Your task to perform on an android device: open app "File Manager" (install if not already installed) Image 0: 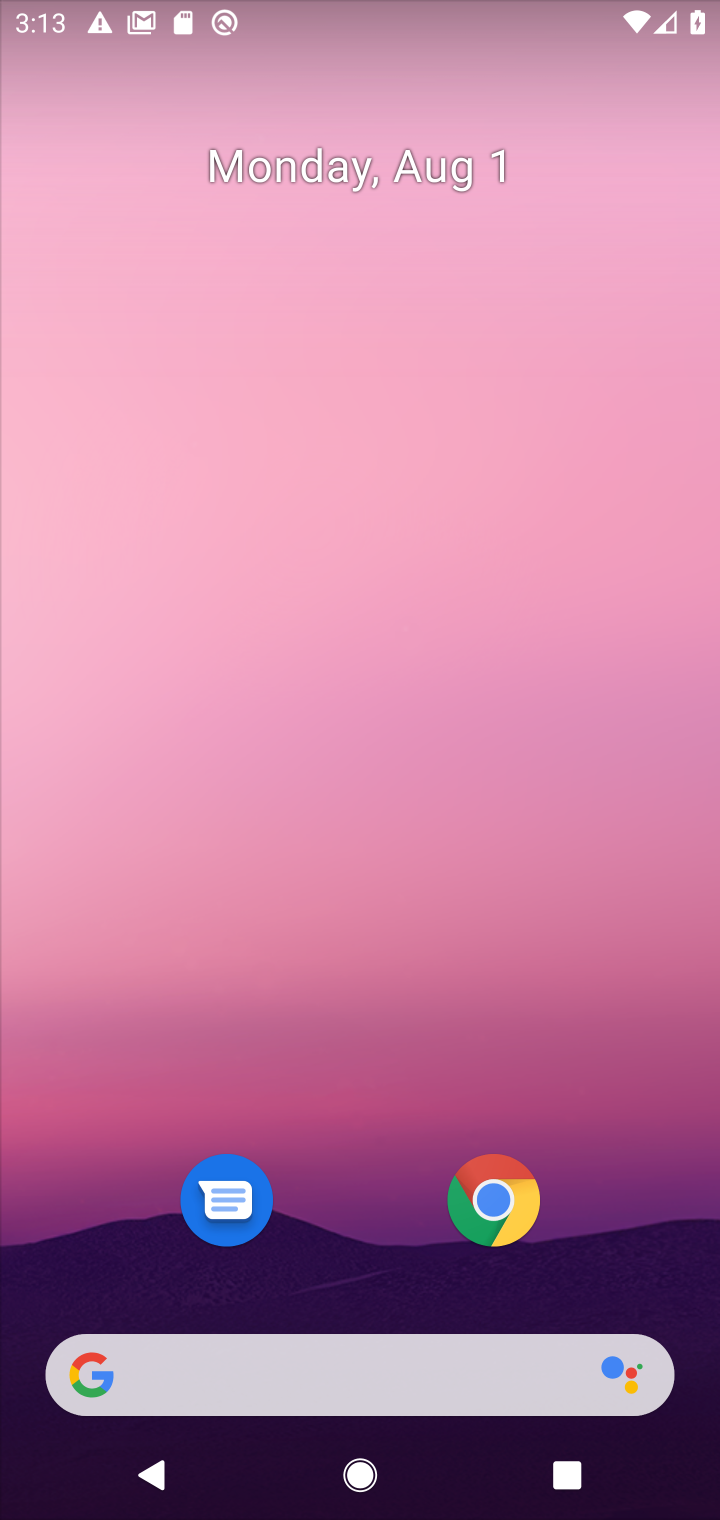
Step 0: drag from (315, 1193) to (324, 54)
Your task to perform on an android device: open app "File Manager" (install if not already installed) Image 1: 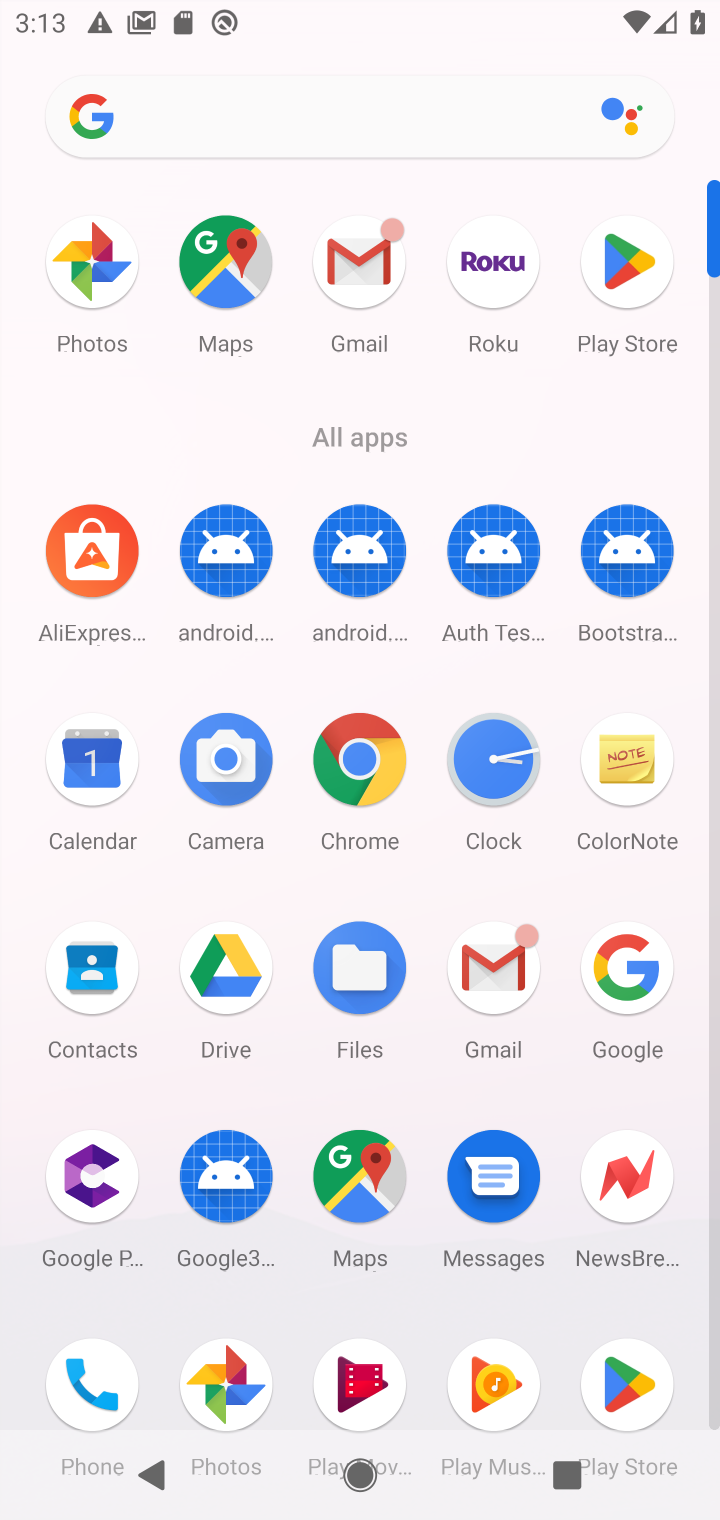
Step 1: click (633, 284)
Your task to perform on an android device: open app "File Manager" (install if not already installed) Image 2: 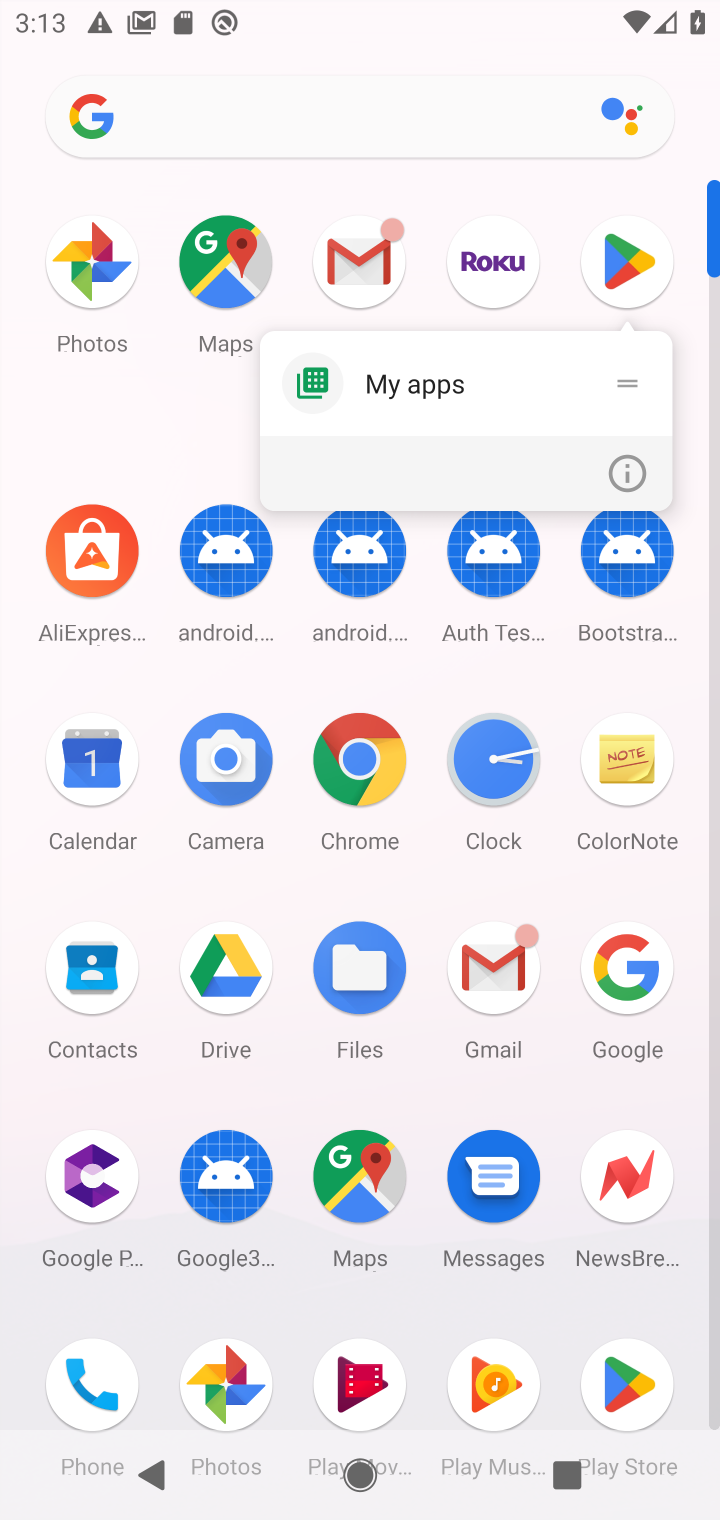
Step 2: click (631, 270)
Your task to perform on an android device: open app "File Manager" (install if not already installed) Image 3: 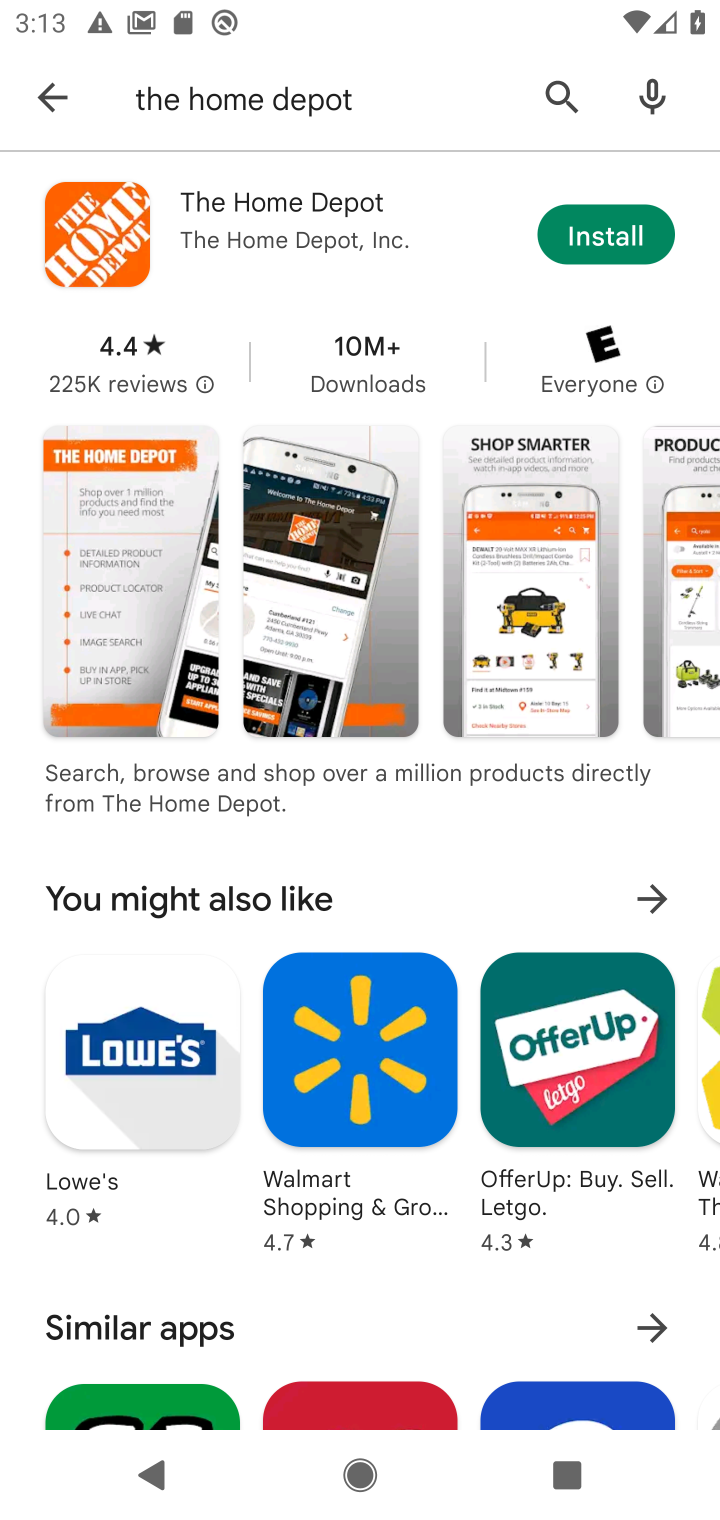
Step 3: click (317, 76)
Your task to perform on an android device: open app "File Manager" (install if not already installed) Image 4: 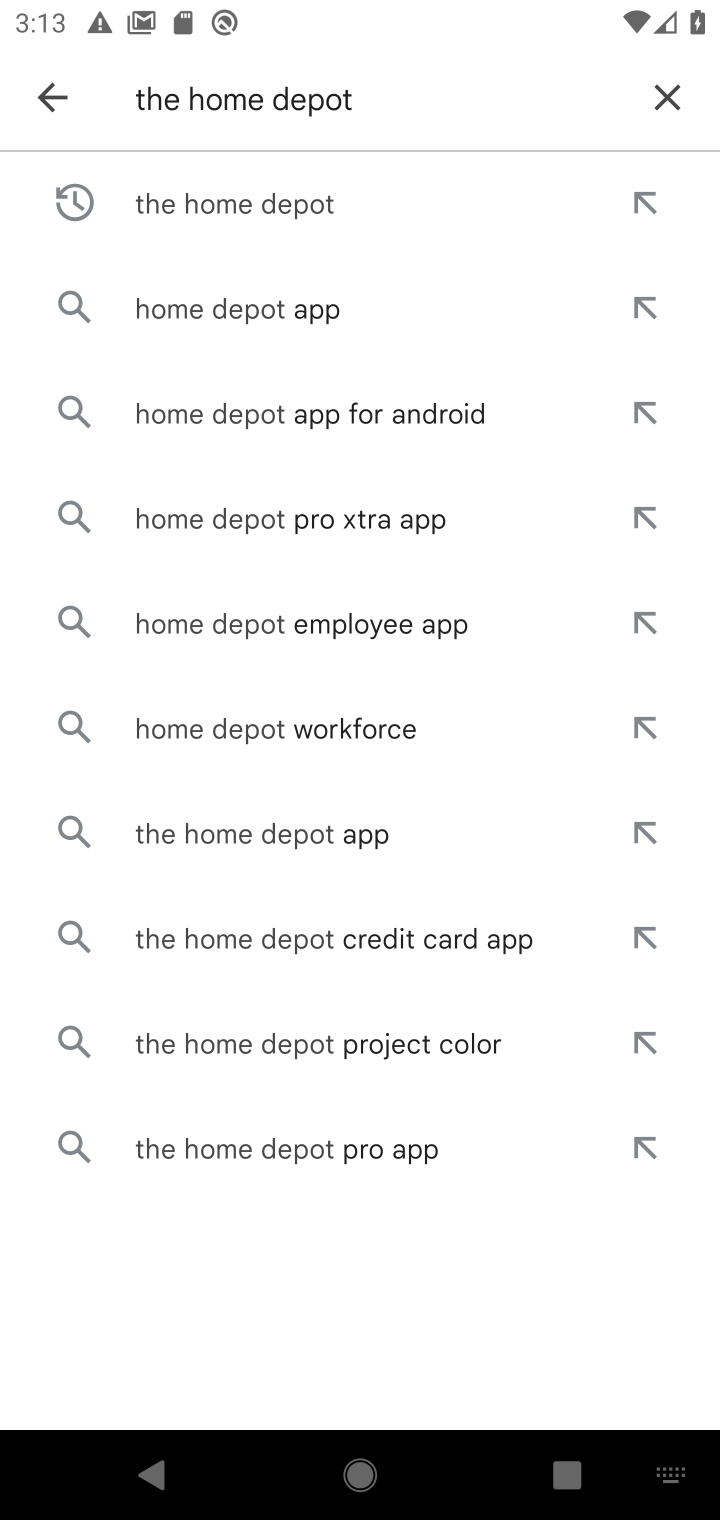
Step 4: click (655, 89)
Your task to perform on an android device: open app "File Manager" (install if not already installed) Image 5: 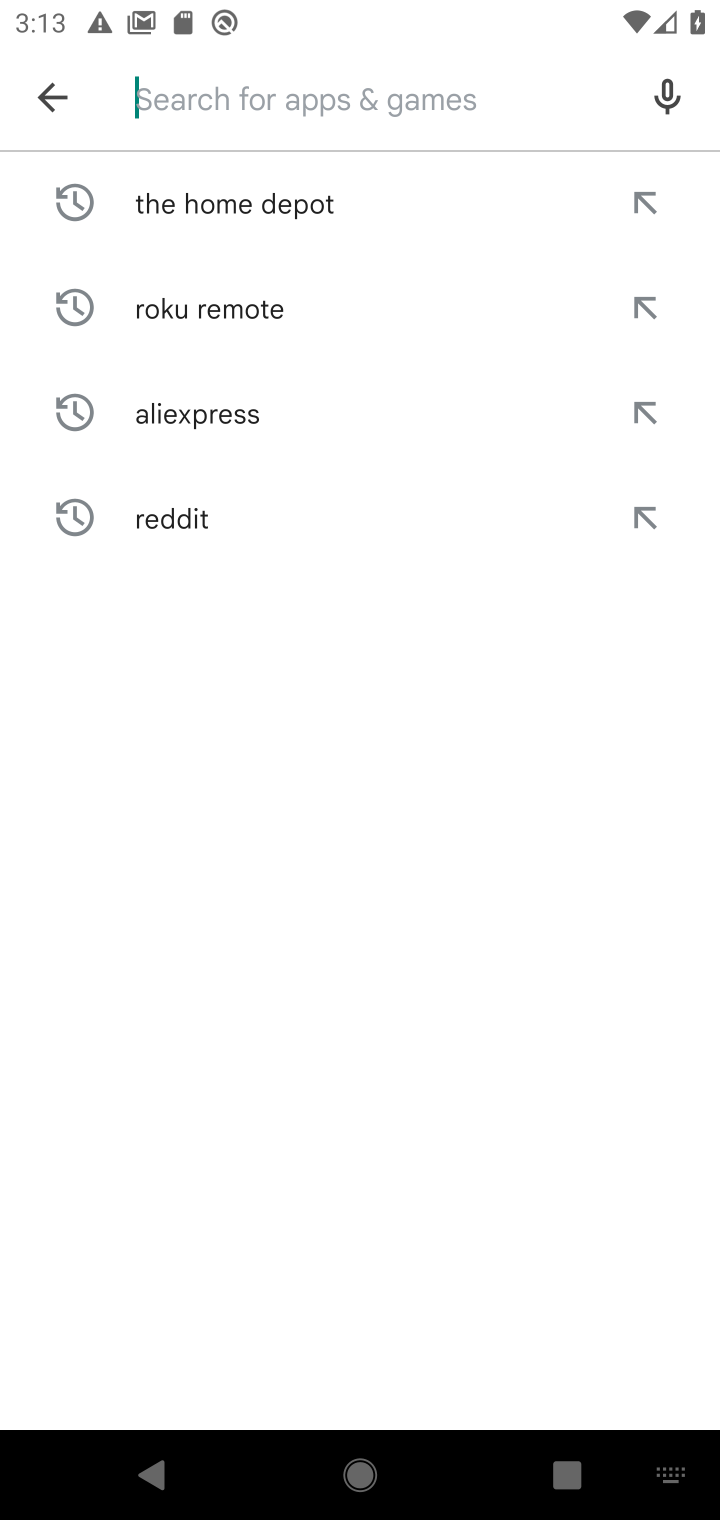
Step 5: type "file manager"
Your task to perform on an android device: open app "File Manager" (install if not already installed) Image 6: 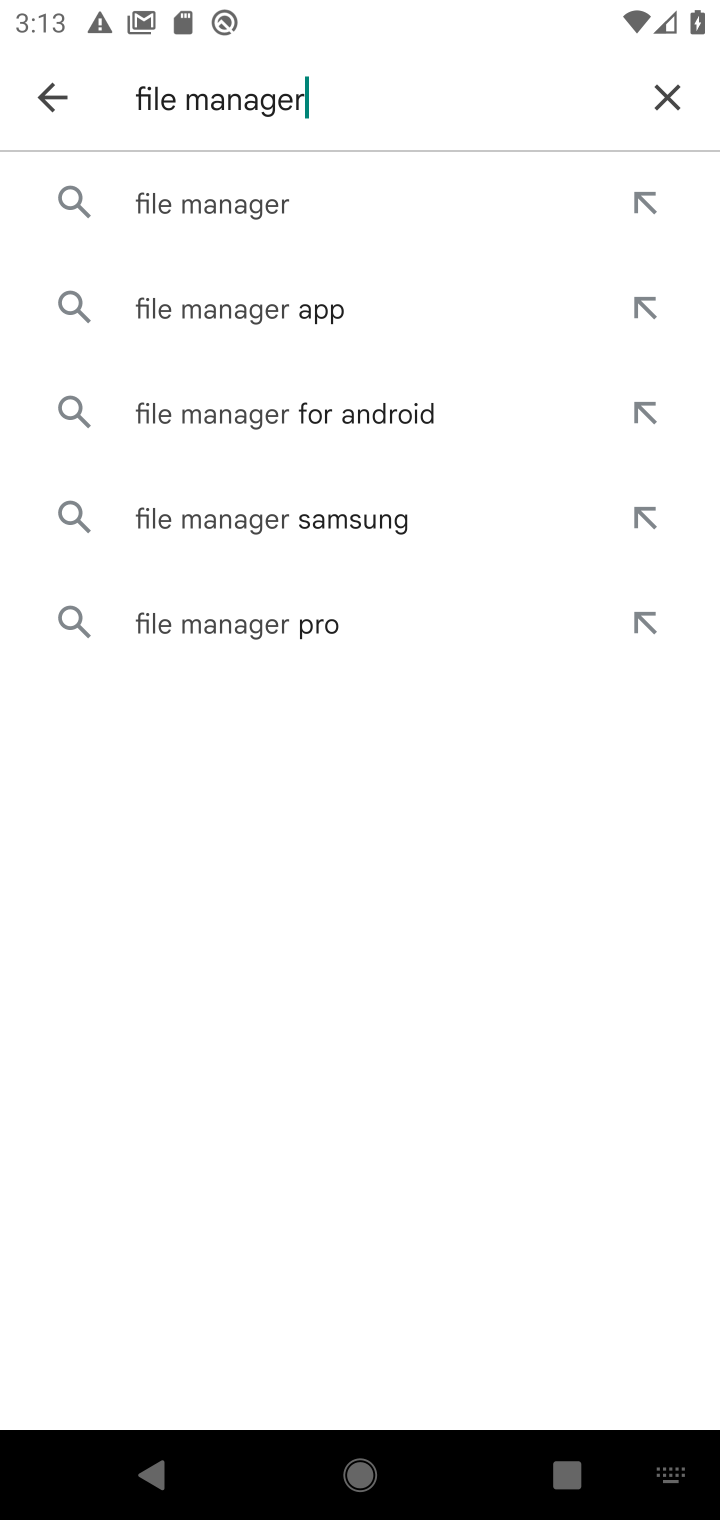
Step 6: click (300, 228)
Your task to perform on an android device: open app "File Manager" (install if not already installed) Image 7: 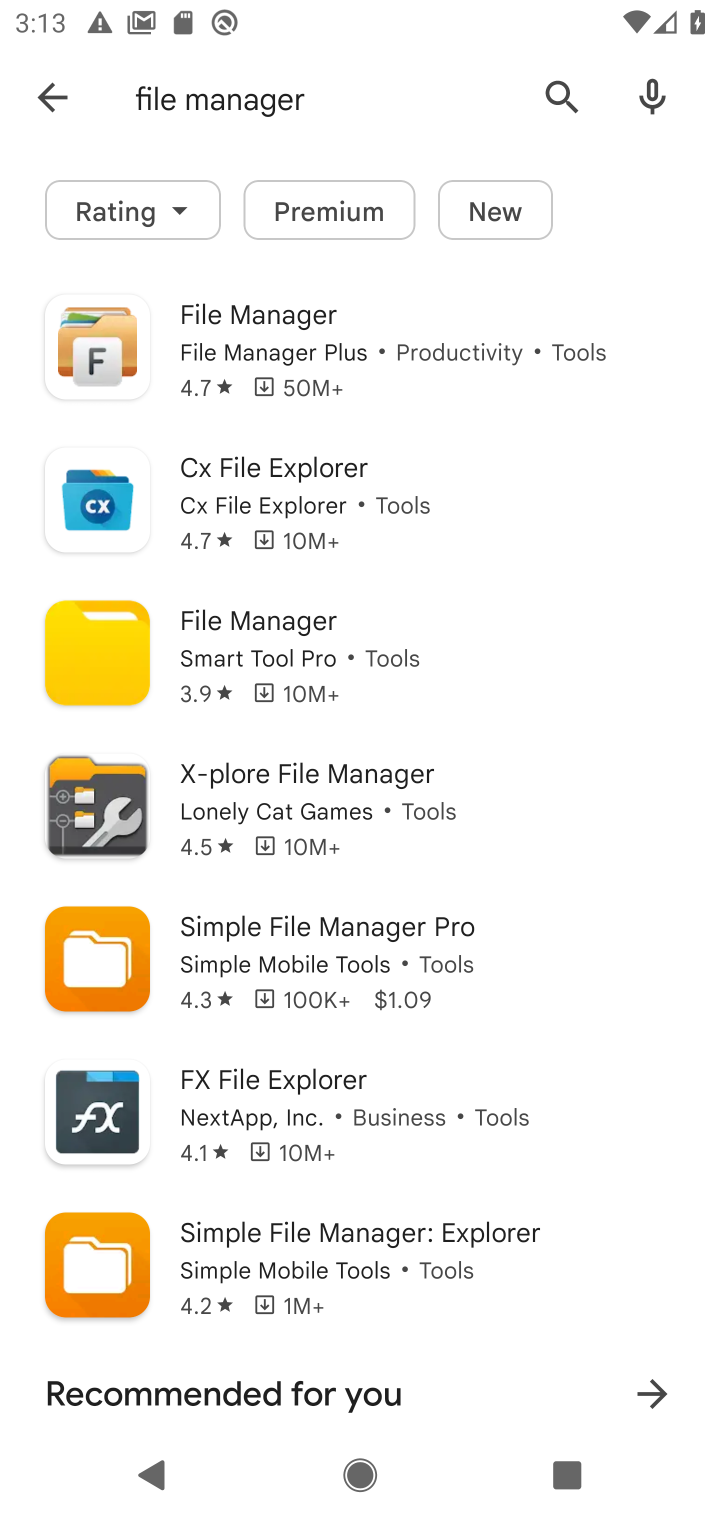
Step 7: click (291, 352)
Your task to perform on an android device: open app "File Manager" (install if not already installed) Image 8: 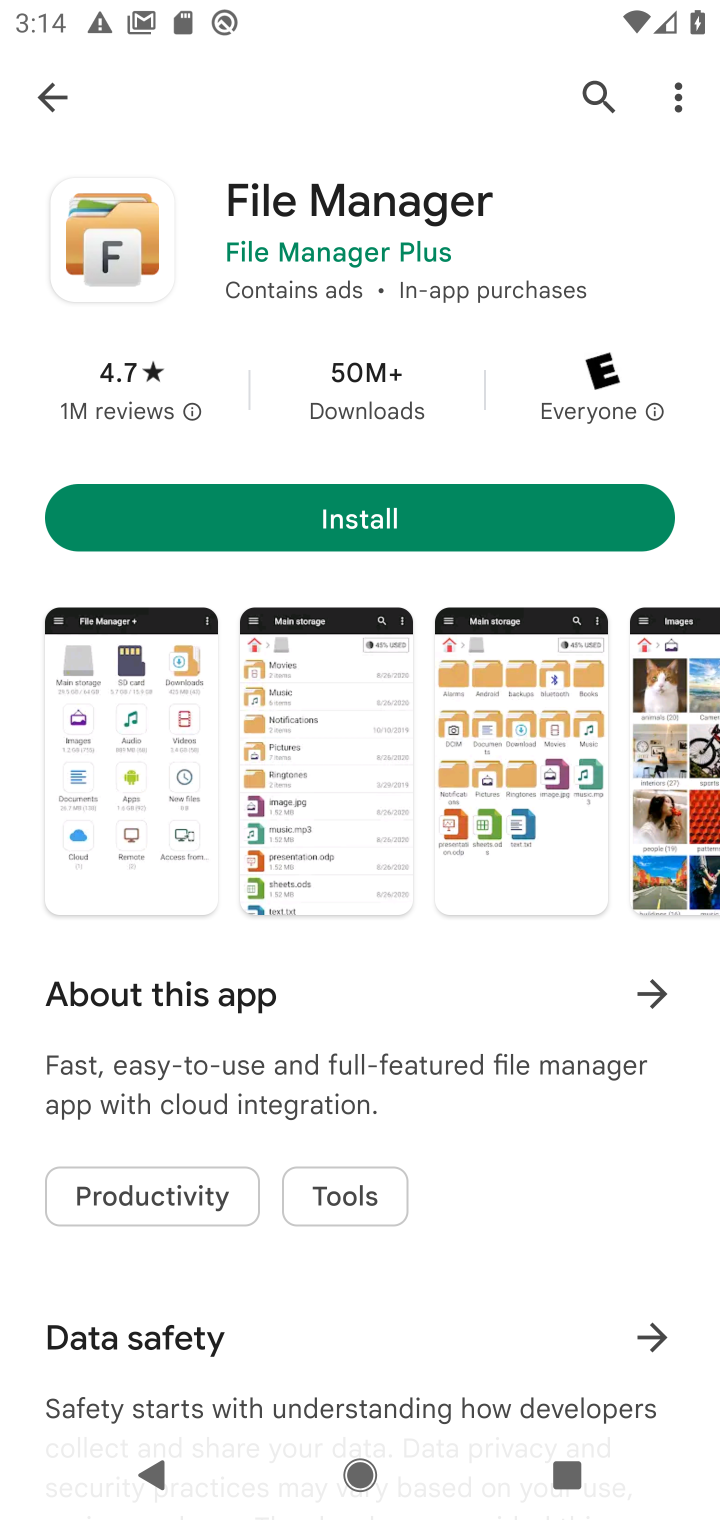
Step 8: click (487, 547)
Your task to perform on an android device: open app "File Manager" (install if not already installed) Image 9: 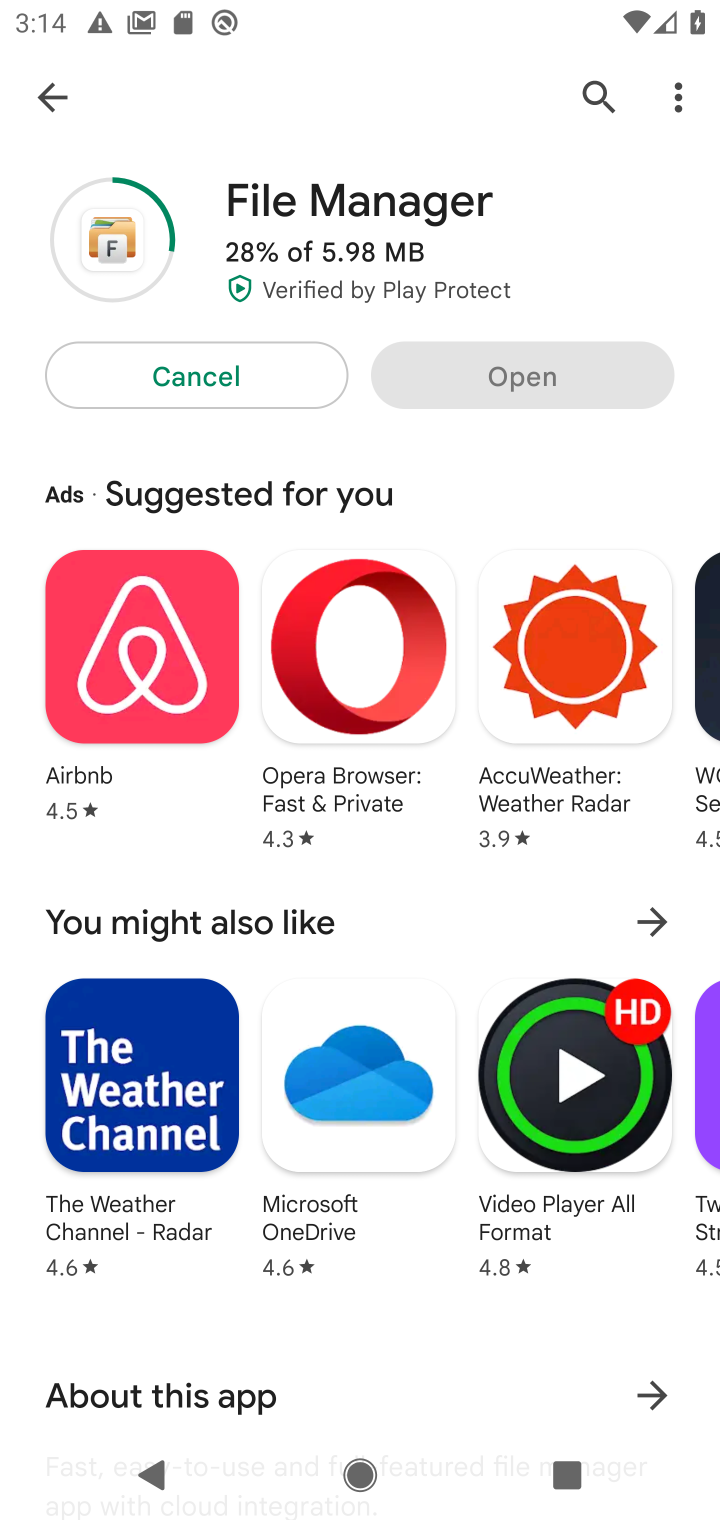
Step 9: click (63, 88)
Your task to perform on an android device: open app "File Manager" (install if not already installed) Image 10: 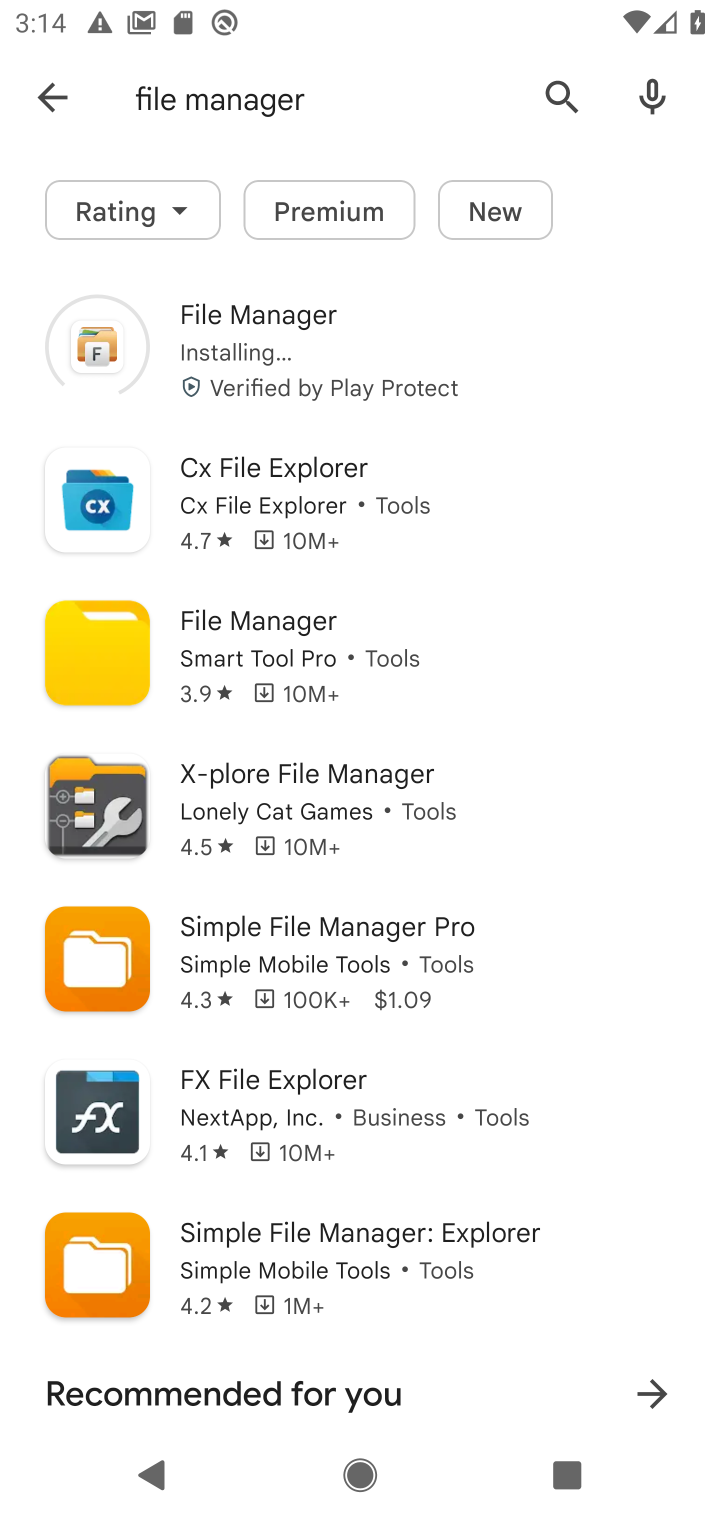
Step 10: click (40, 103)
Your task to perform on an android device: open app "File Manager" (install if not already installed) Image 11: 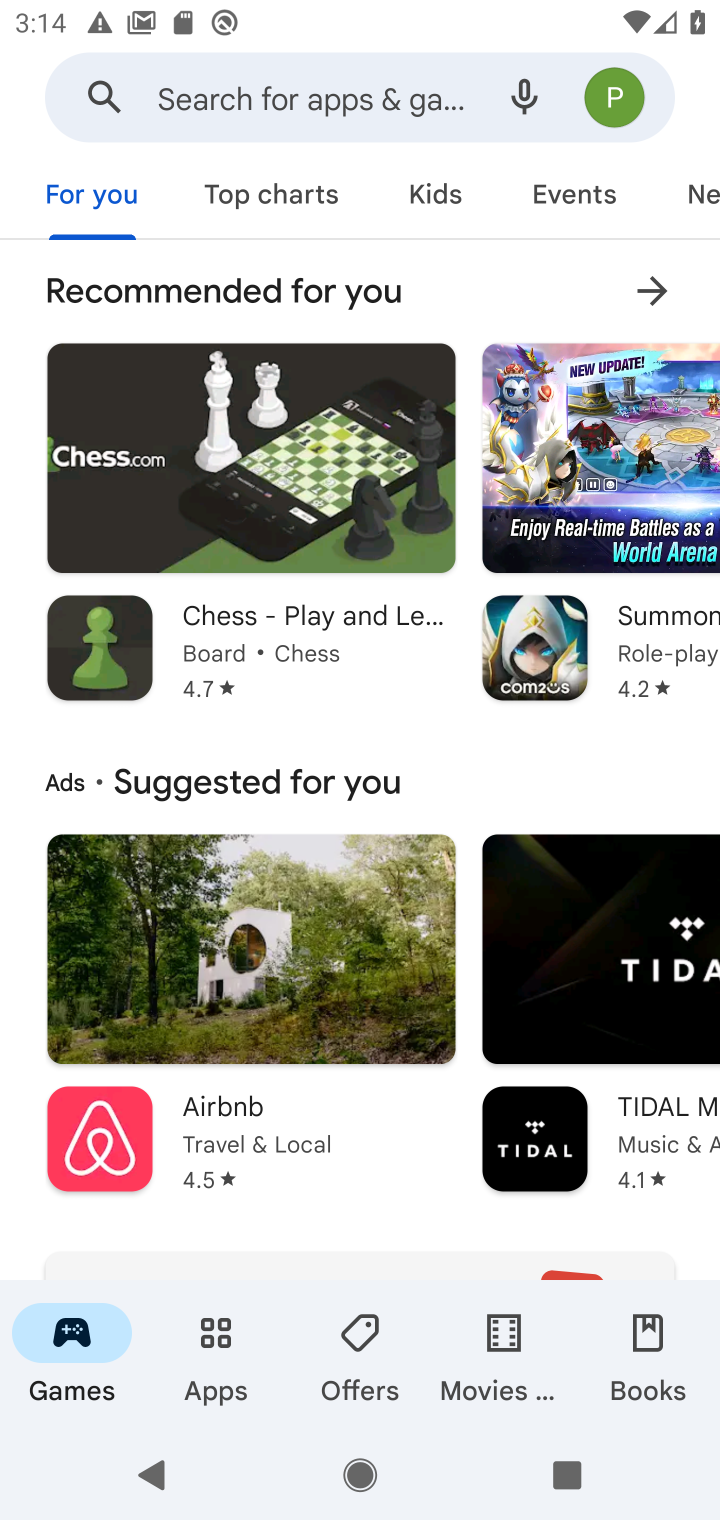
Step 11: click (607, 107)
Your task to perform on an android device: open app "File Manager" (install if not already installed) Image 12: 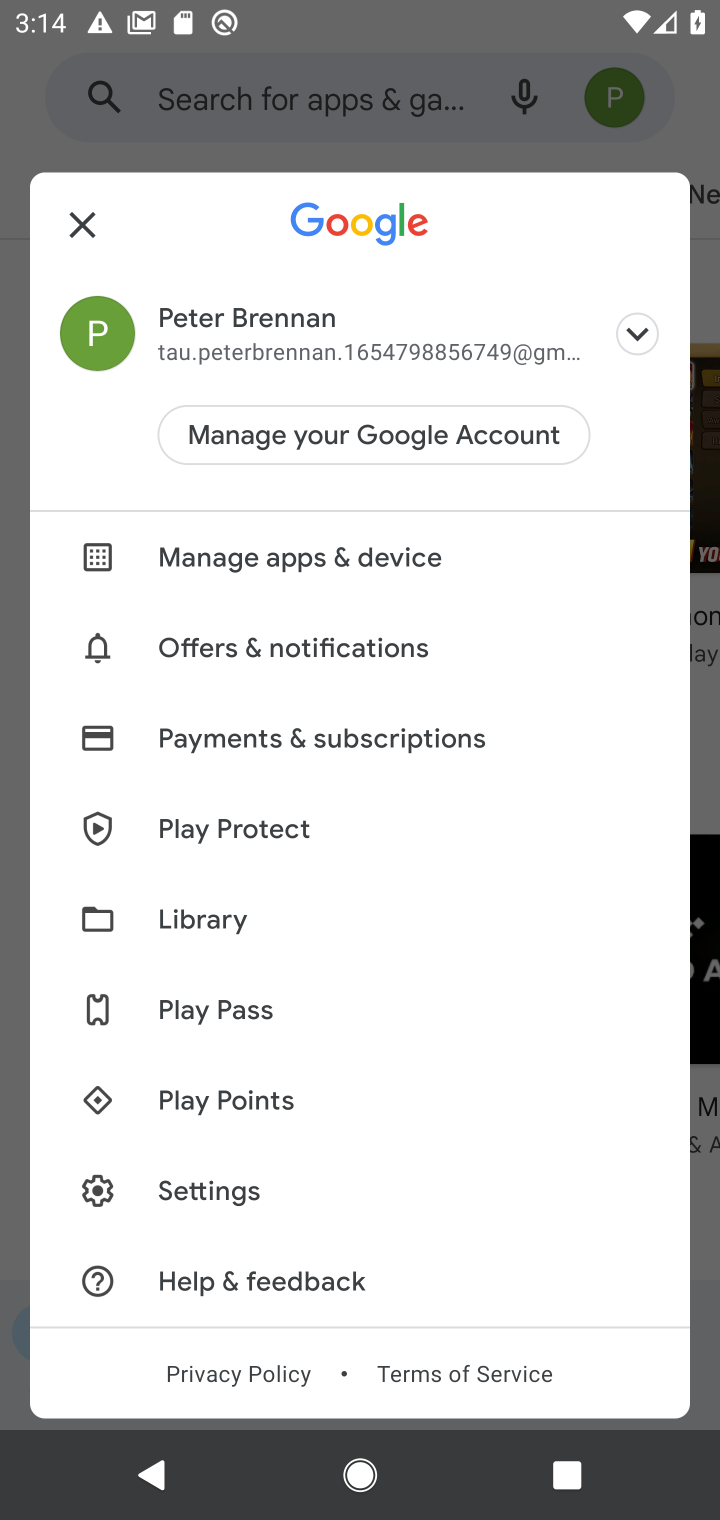
Step 12: click (320, 561)
Your task to perform on an android device: open app "File Manager" (install if not already installed) Image 13: 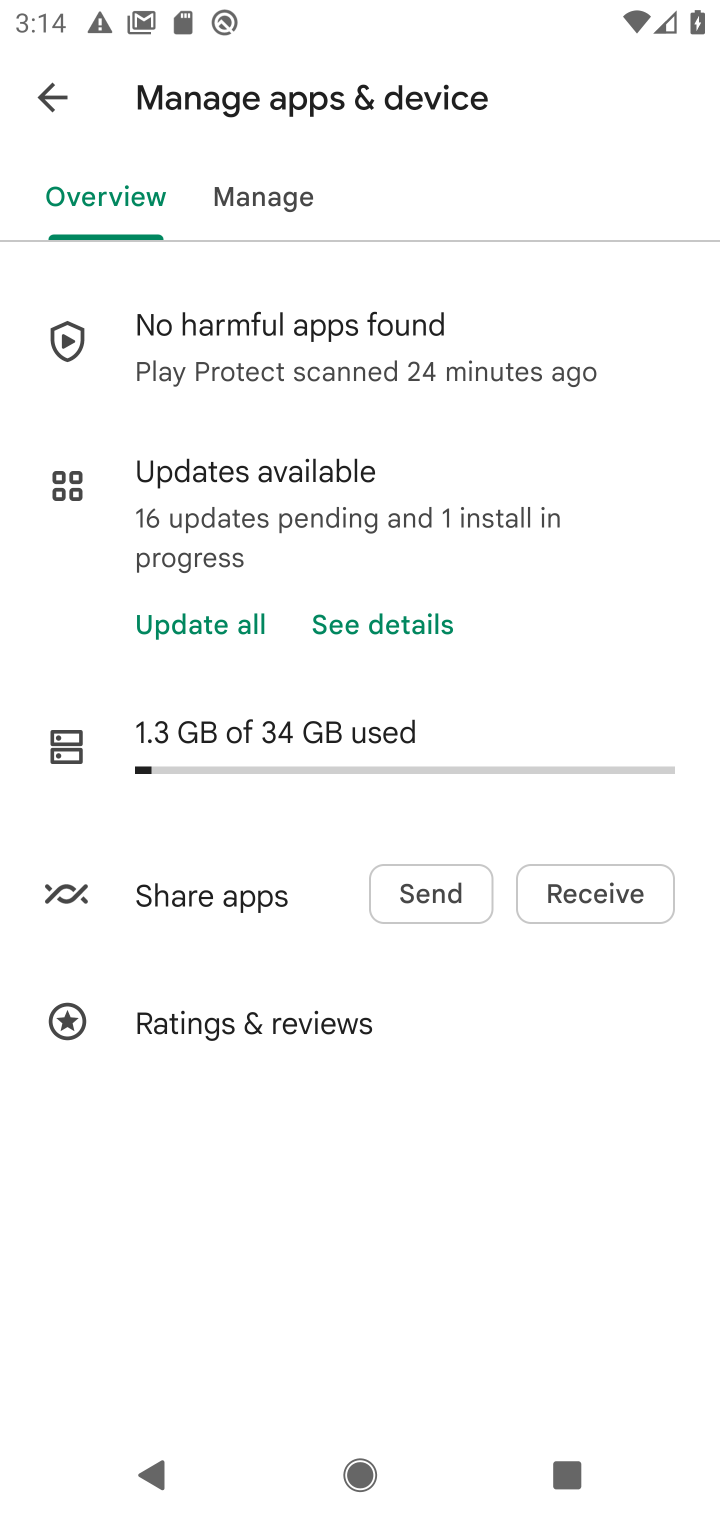
Step 13: click (264, 525)
Your task to perform on an android device: open app "File Manager" (install if not already installed) Image 14: 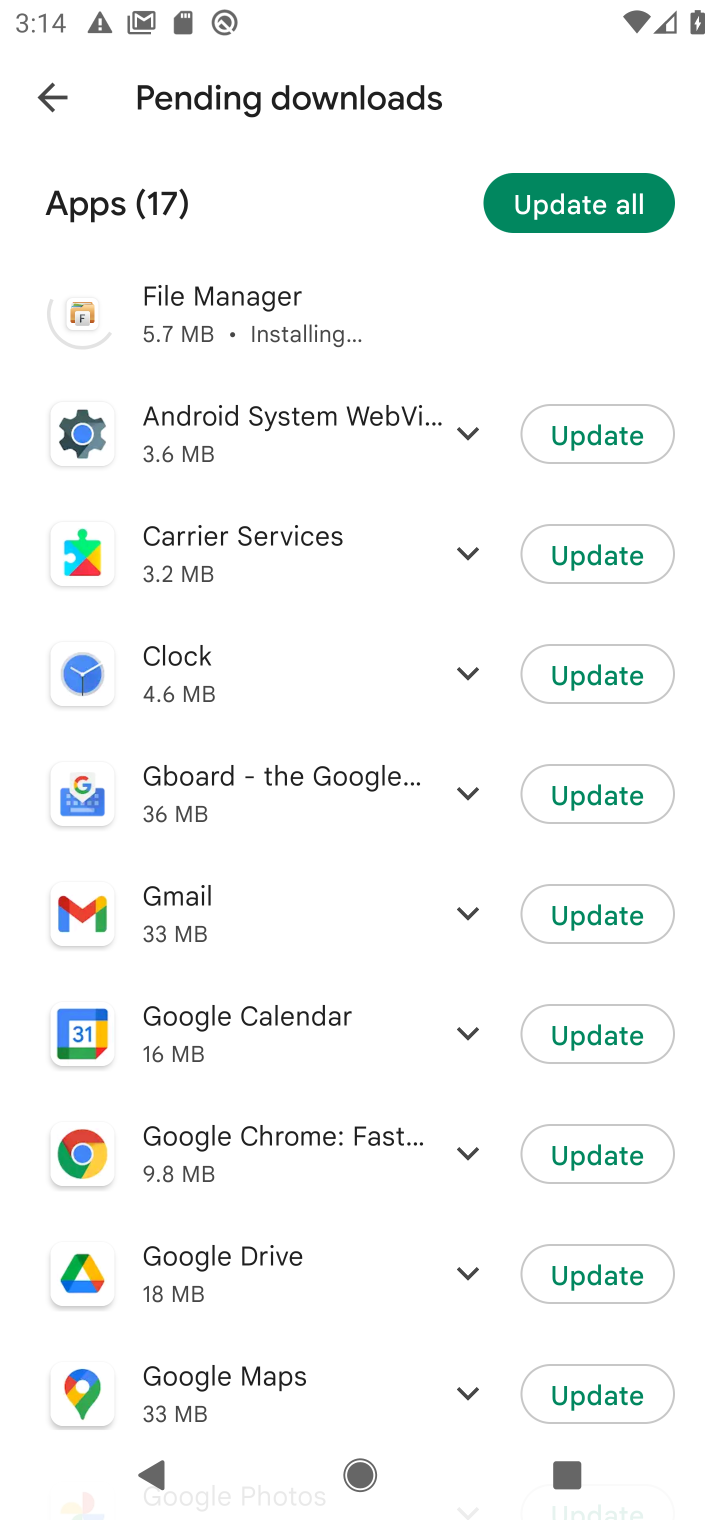
Step 14: click (296, 324)
Your task to perform on an android device: open app "File Manager" (install if not already installed) Image 15: 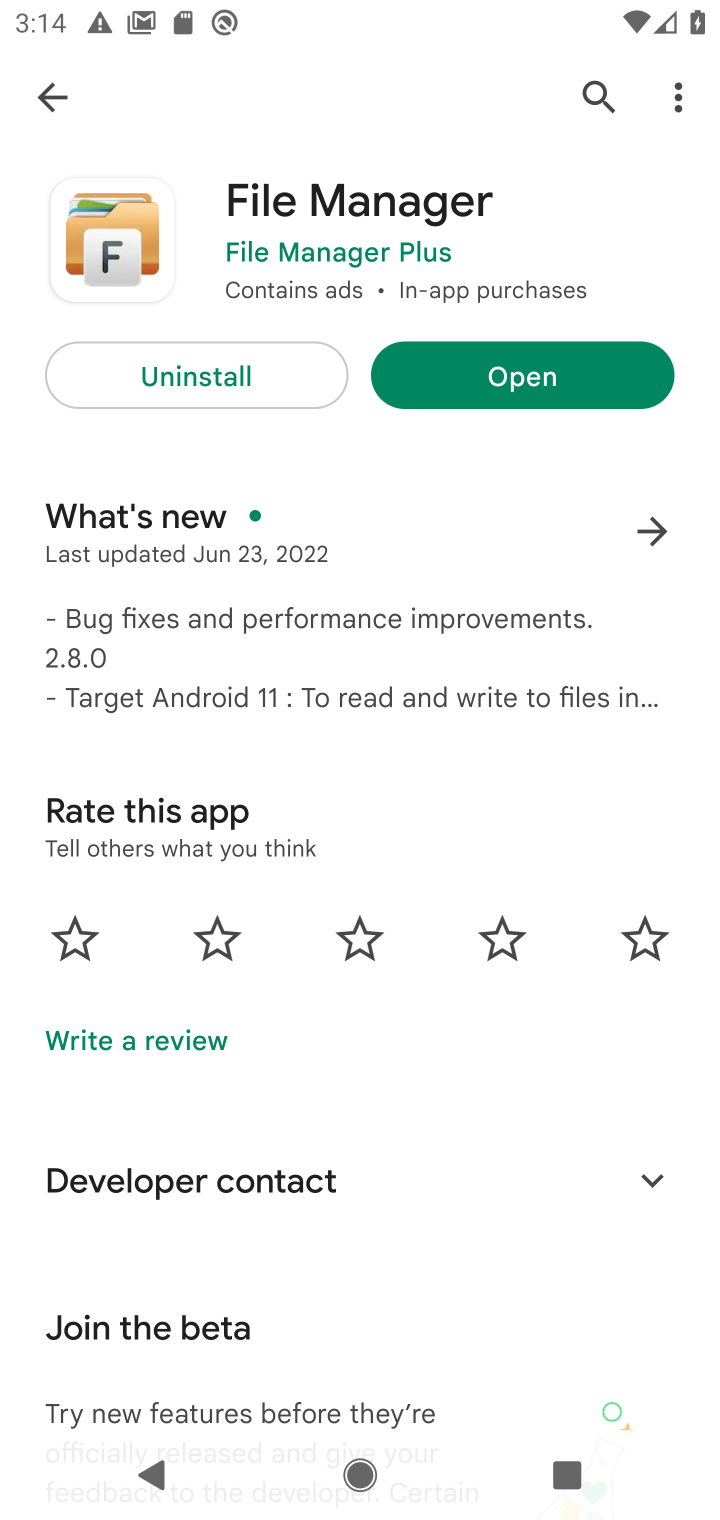
Step 15: click (302, 328)
Your task to perform on an android device: open app "File Manager" (install if not already installed) Image 16: 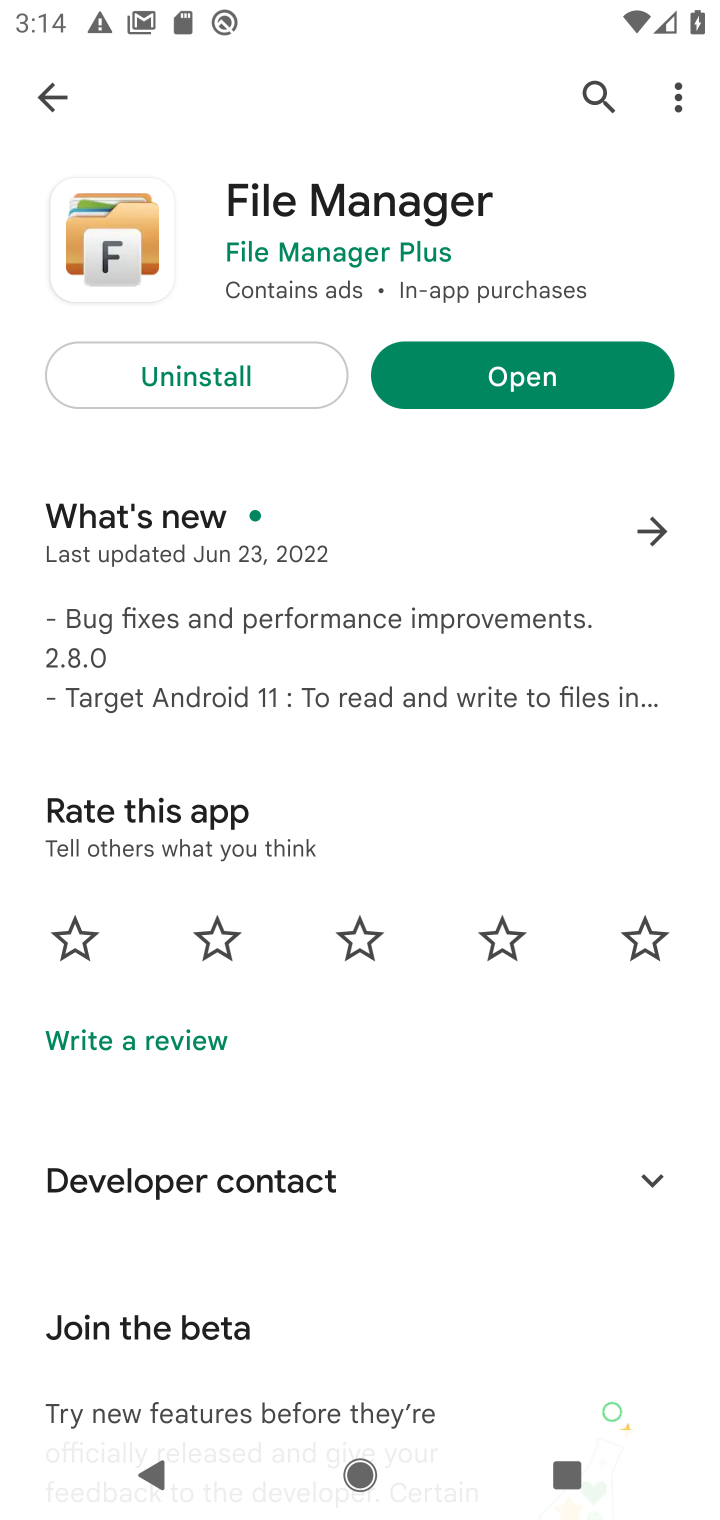
Step 16: click (593, 385)
Your task to perform on an android device: open app "File Manager" (install if not already installed) Image 17: 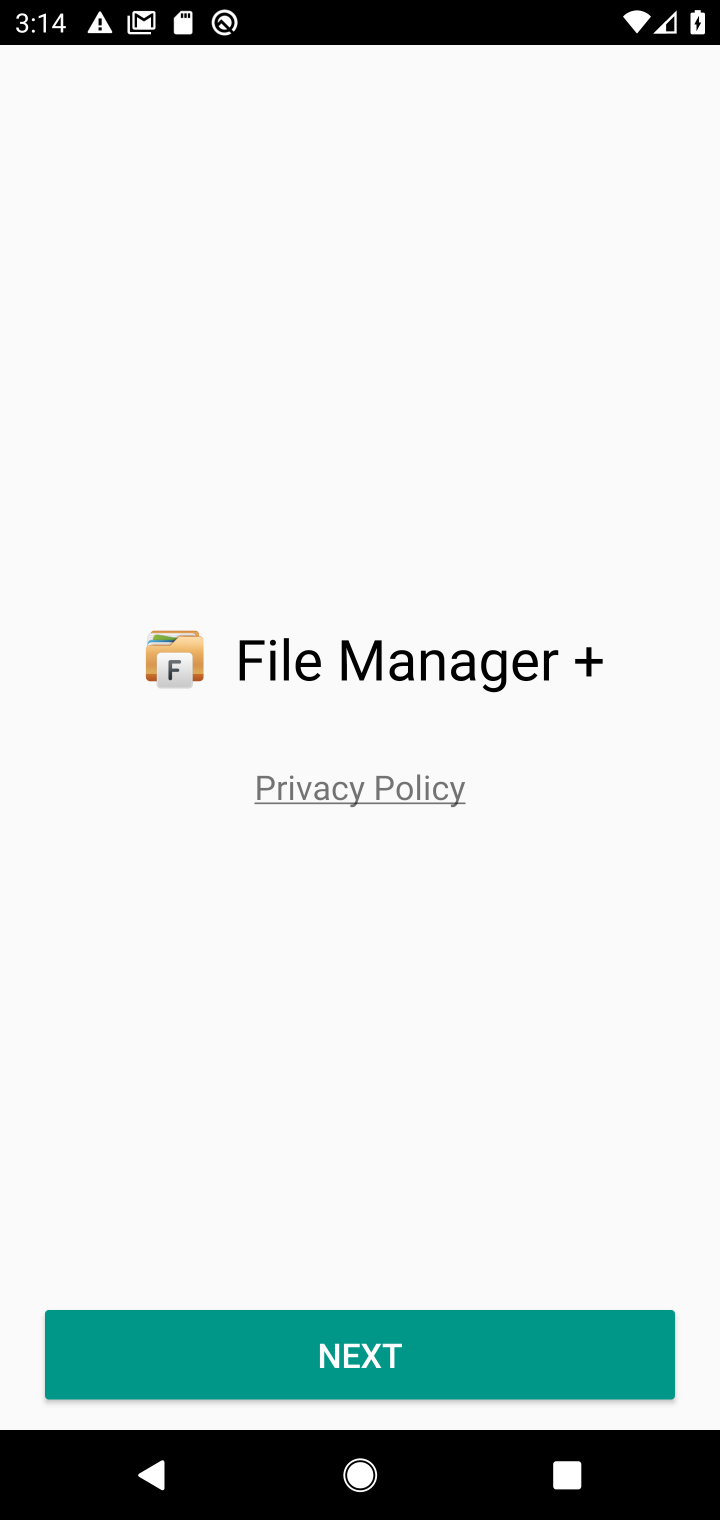
Step 17: click (405, 1341)
Your task to perform on an android device: open app "File Manager" (install if not already installed) Image 18: 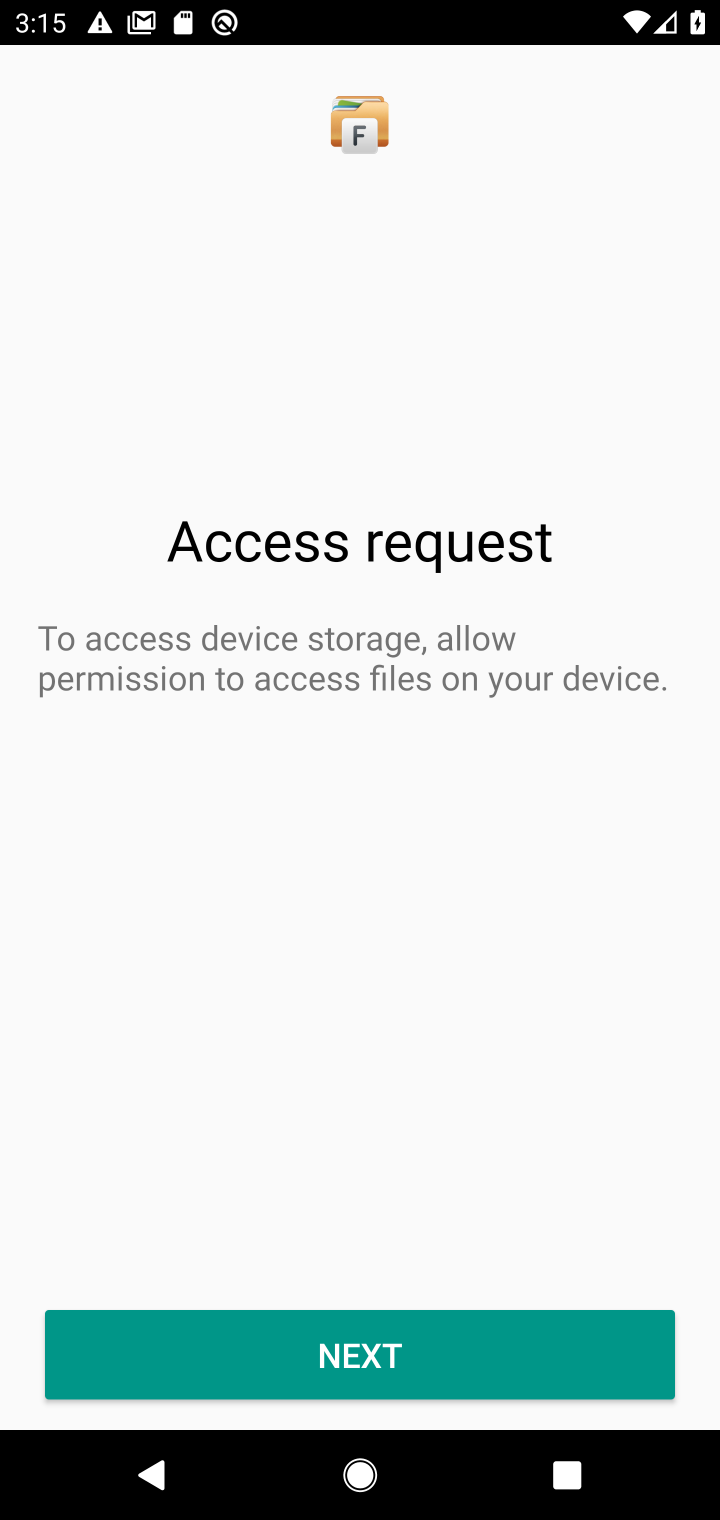
Step 18: click (416, 1333)
Your task to perform on an android device: open app "File Manager" (install if not already installed) Image 19: 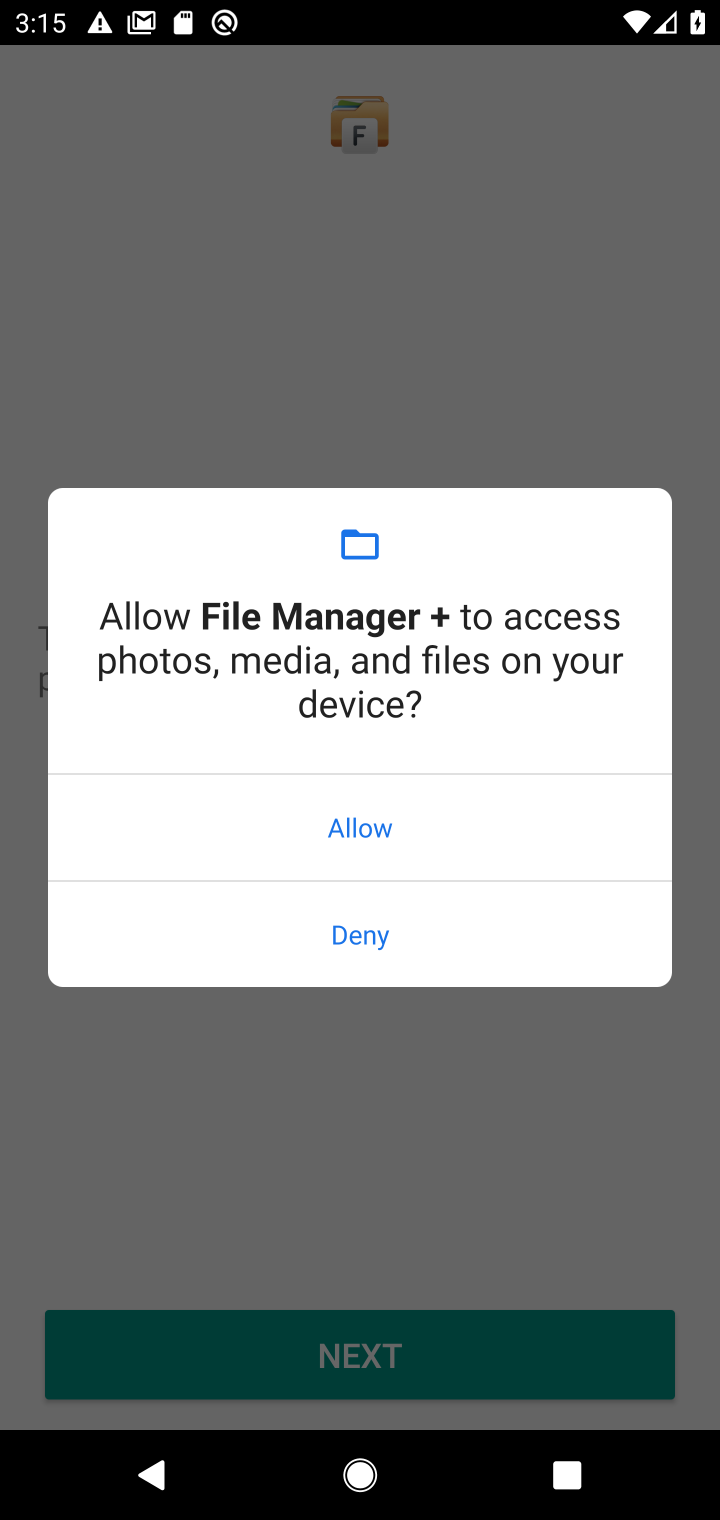
Step 19: click (482, 835)
Your task to perform on an android device: open app "File Manager" (install if not already installed) Image 20: 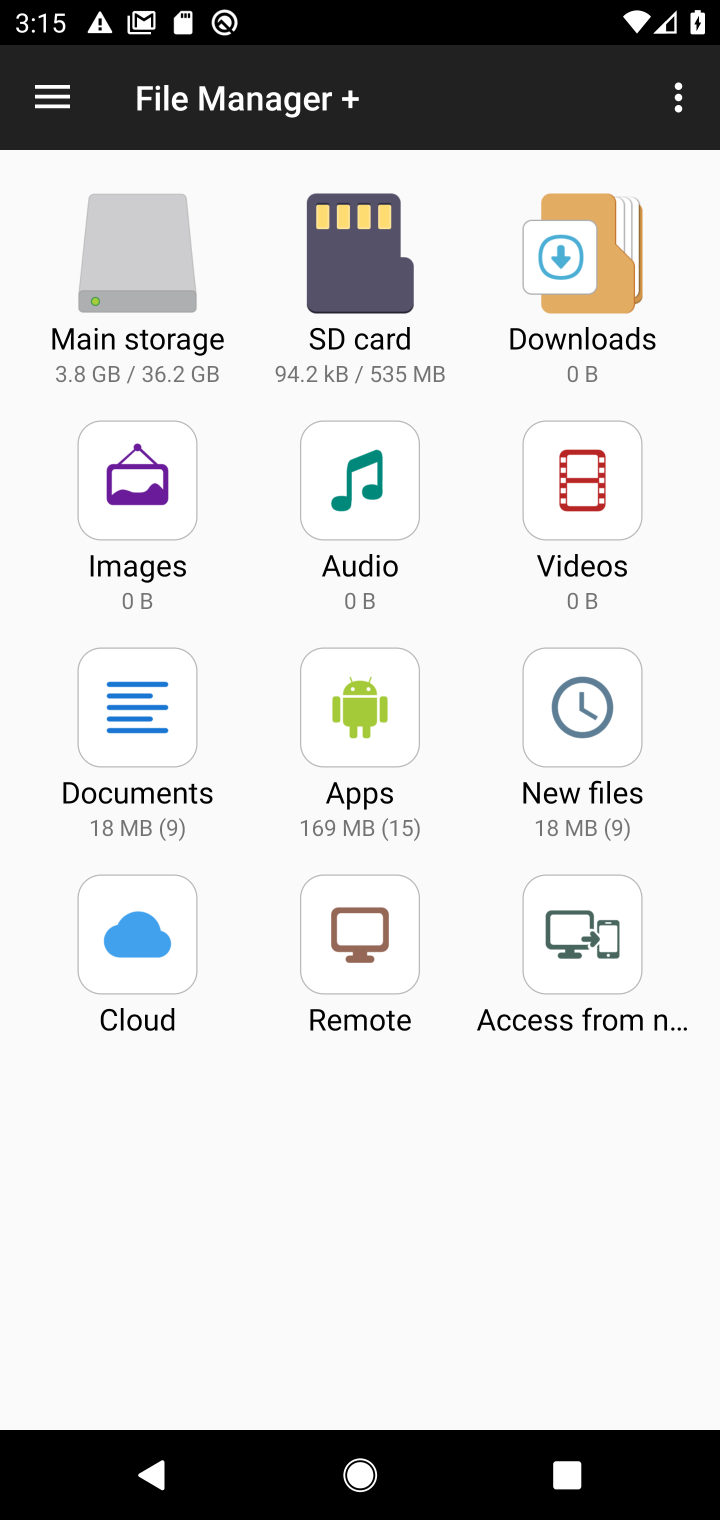
Step 20: task complete